Your task to perform on an android device: see sites visited before in the chrome app Image 0: 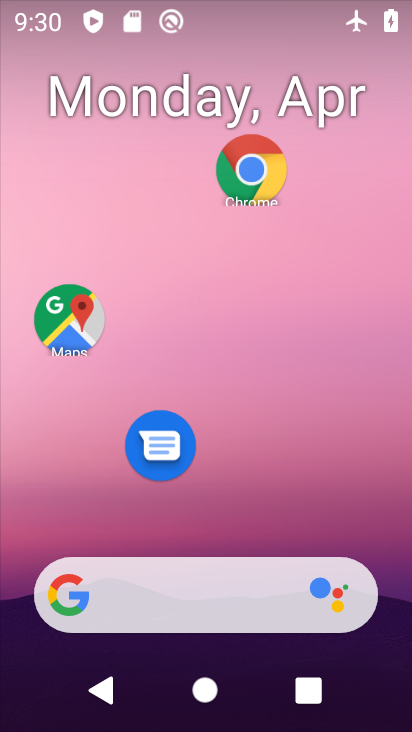
Step 0: click (254, 180)
Your task to perform on an android device: see sites visited before in the chrome app Image 1: 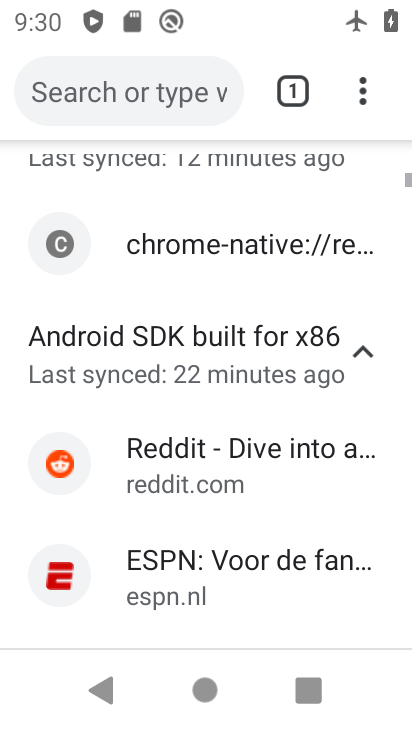
Step 1: click (367, 97)
Your task to perform on an android device: see sites visited before in the chrome app Image 2: 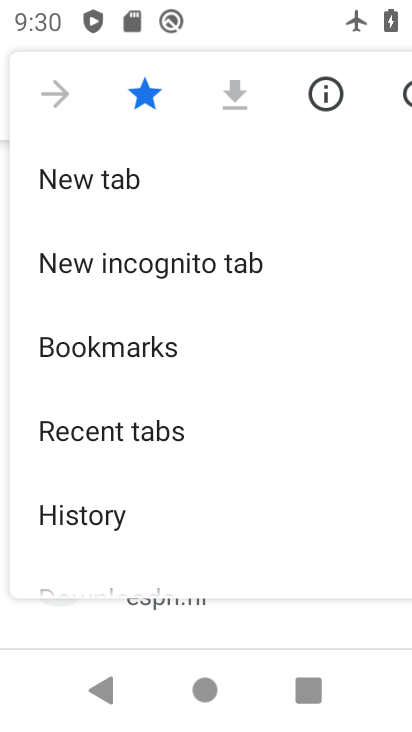
Step 2: click (101, 424)
Your task to perform on an android device: see sites visited before in the chrome app Image 3: 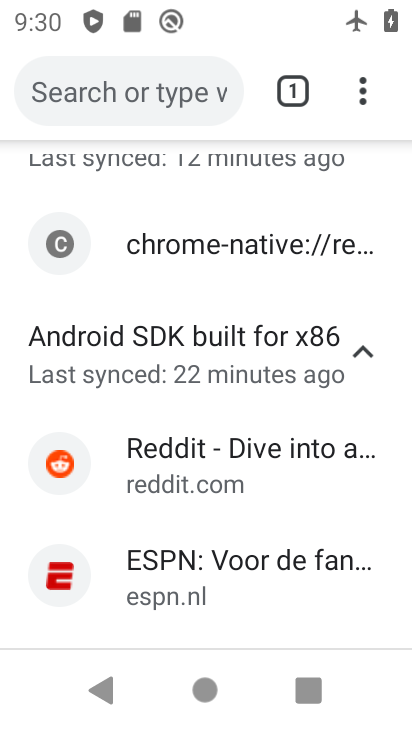
Step 3: task complete